Your task to perform on an android device: toggle javascript in the chrome app Image 0: 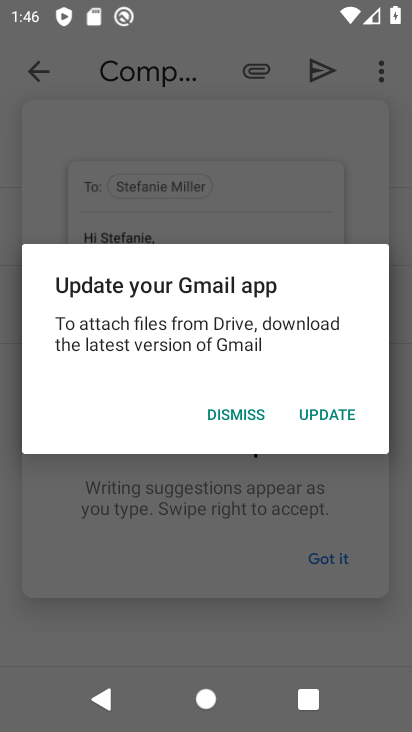
Step 0: click (236, 413)
Your task to perform on an android device: toggle javascript in the chrome app Image 1: 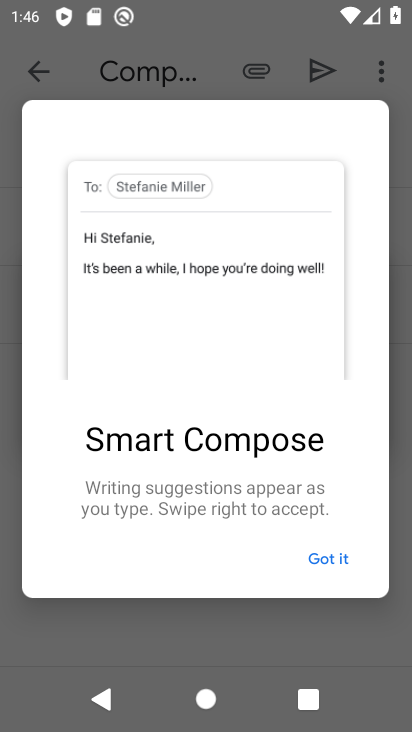
Step 1: click (332, 553)
Your task to perform on an android device: toggle javascript in the chrome app Image 2: 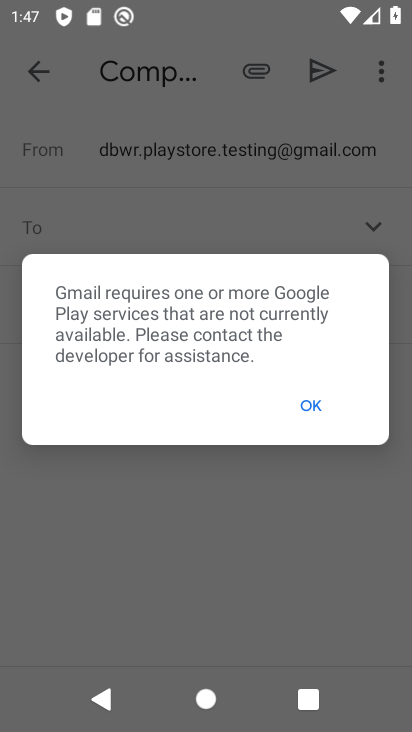
Step 2: click (310, 410)
Your task to perform on an android device: toggle javascript in the chrome app Image 3: 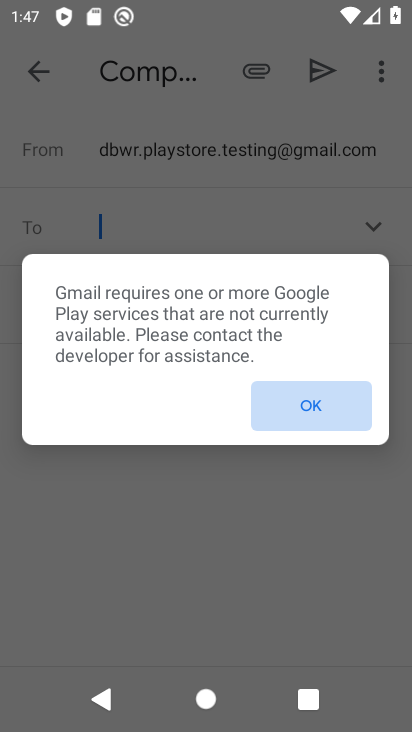
Step 3: click (311, 412)
Your task to perform on an android device: toggle javascript in the chrome app Image 4: 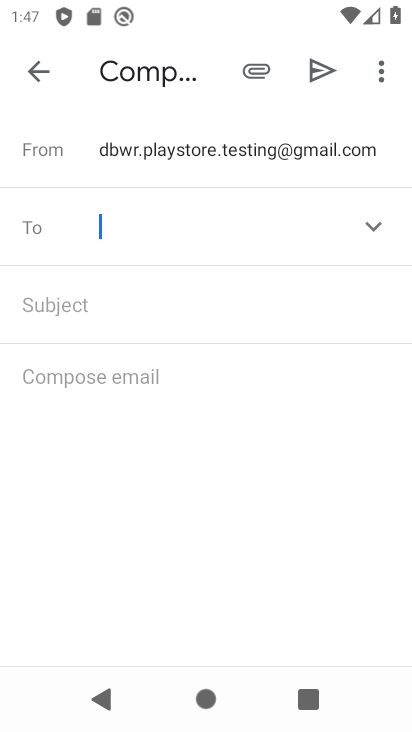
Step 4: click (312, 409)
Your task to perform on an android device: toggle javascript in the chrome app Image 5: 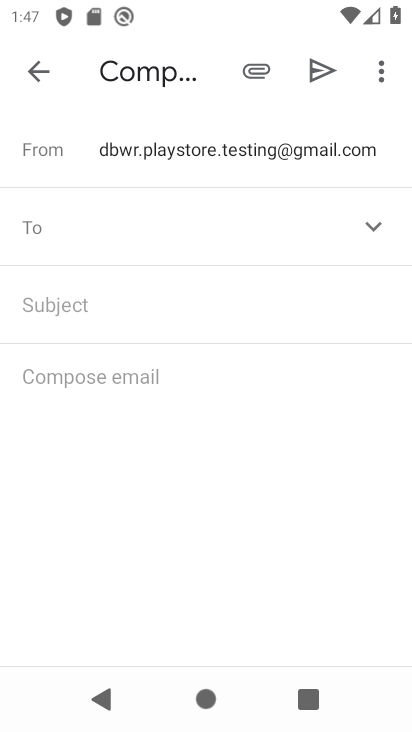
Step 5: click (33, 75)
Your task to perform on an android device: toggle javascript in the chrome app Image 6: 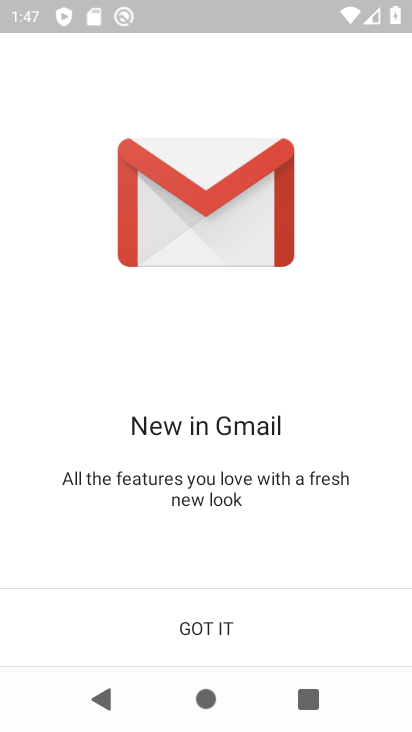
Step 6: click (200, 617)
Your task to perform on an android device: toggle javascript in the chrome app Image 7: 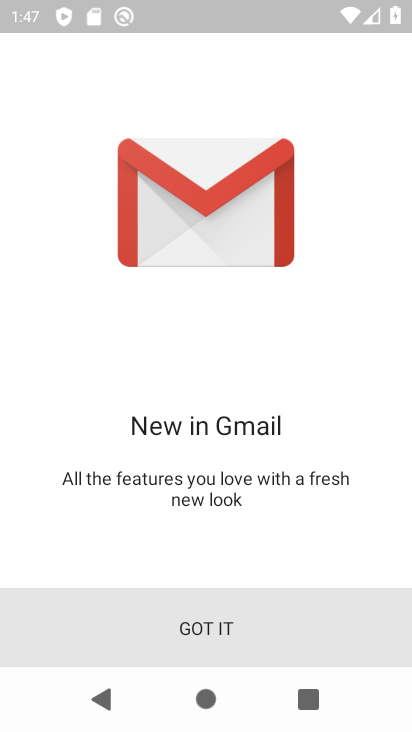
Step 7: click (205, 614)
Your task to perform on an android device: toggle javascript in the chrome app Image 8: 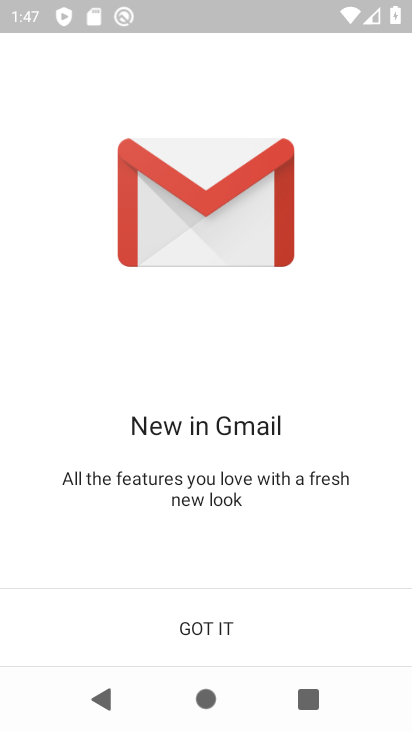
Step 8: click (206, 620)
Your task to perform on an android device: toggle javascript in the chrome app Image 9: 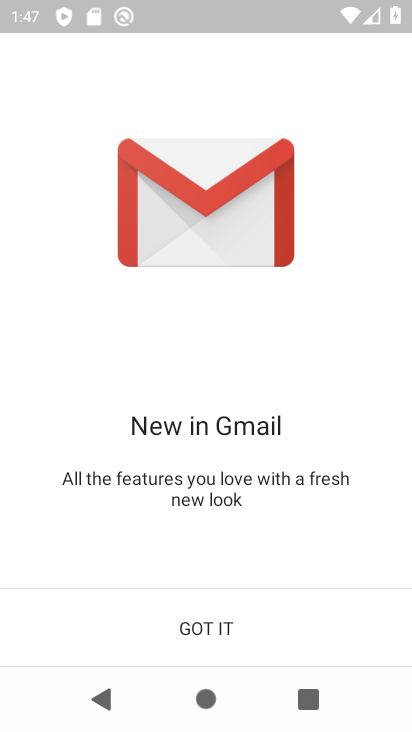
Step 9: click (207, 624)
Your task to perform on an android device: toggle javascript in the chrome app Image 10: 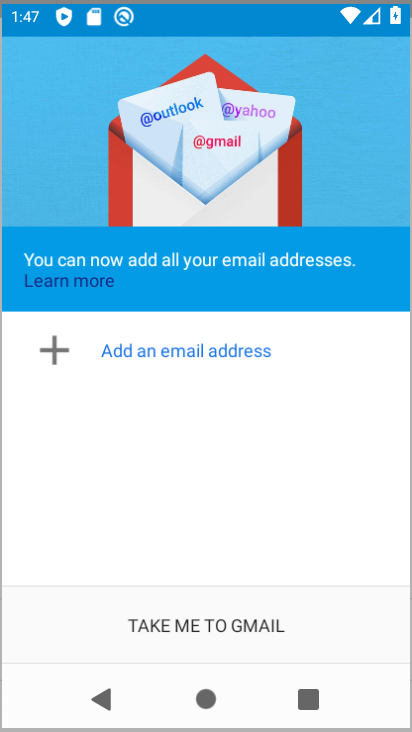
Step 10: click (213, 626)
Your task to perform on an android device: toggle javascript in the chrome app Image 11: 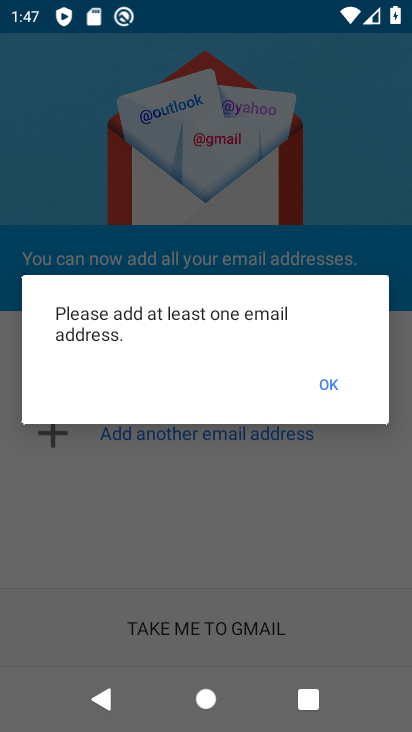
Step 11: click (320, 380)
Your task to perform on an android device: toggle javascript in the chrome app Image 12: 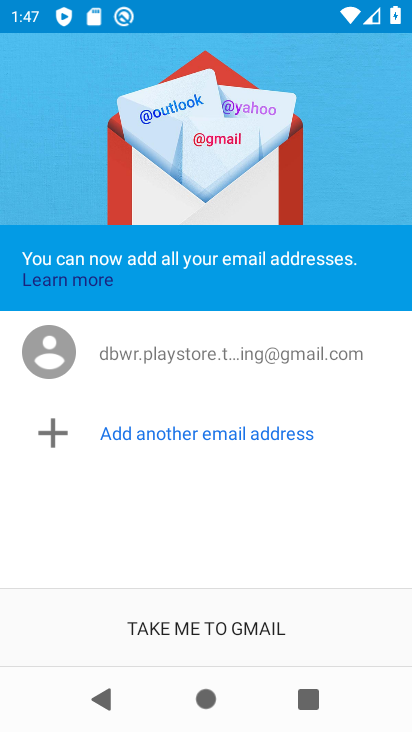
Step 12: click (322, 383)
Your task to perform on an android device: toggle javascript in the chrome app Image 13: 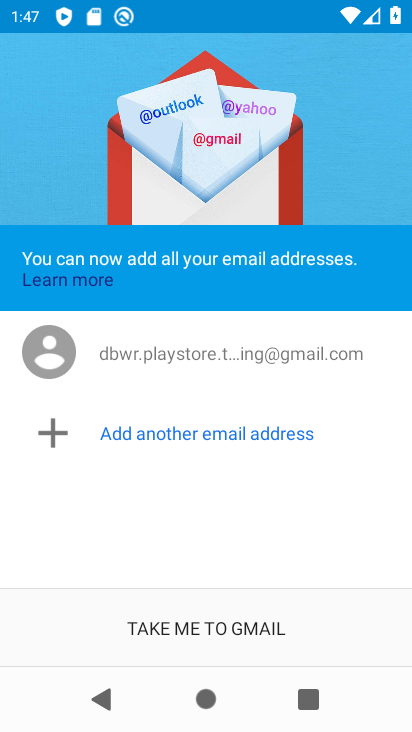
Step 13: press back button
Your task to perform on an android device: toggle javascript in the chrome app Image 14: 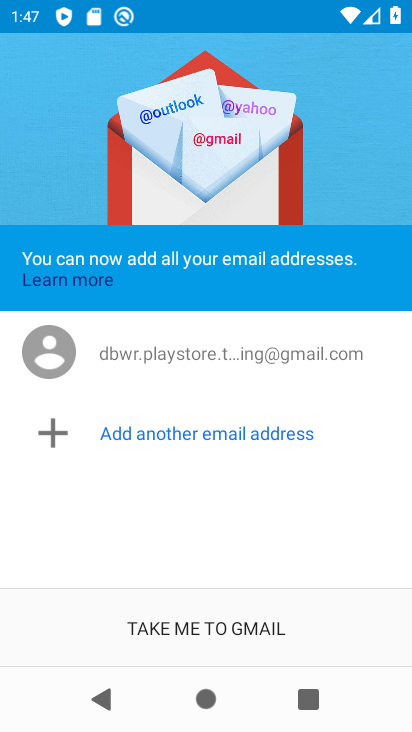
Step 14: press back button
Your task to perform on an android device: toggle javascript in the chrome app Image 15: 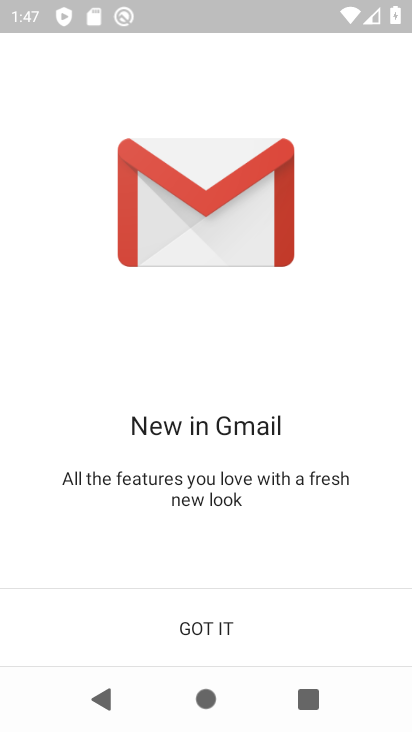
Step 15: press back button
Your task to perform on an android device: toggle javascript in the chrome app Image 16: 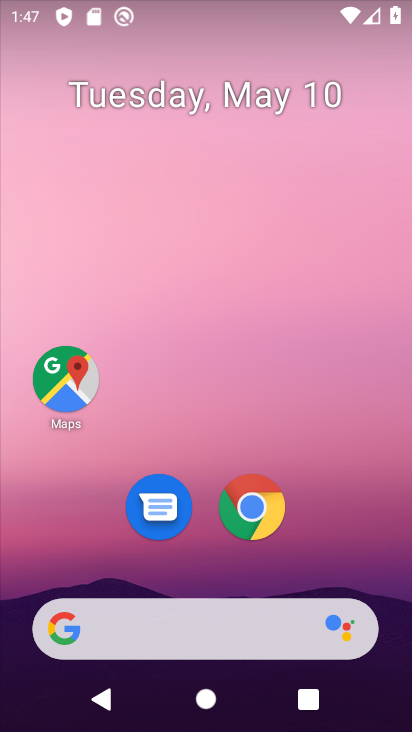
Step 16: drag from (232, 466) to (116, 0)
Your task to perform on an android device: toggle javascript in the chrome app Image 17: 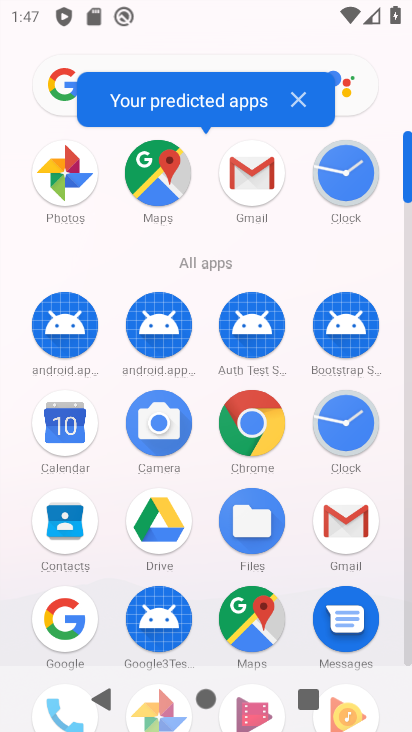
Step 17: click (233, 424)
Your task to perform on an android device: toggle javascript in the chrome app Image 18: 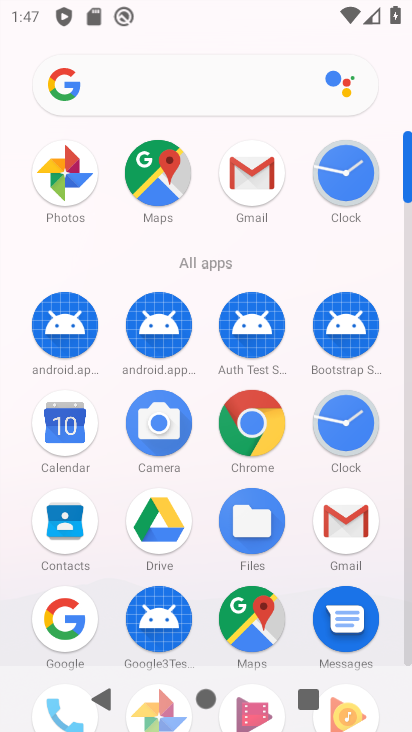
Step 18: click (242, 427)
Your task to perform on an android device: toggle javascript in the chrome app Image 19: 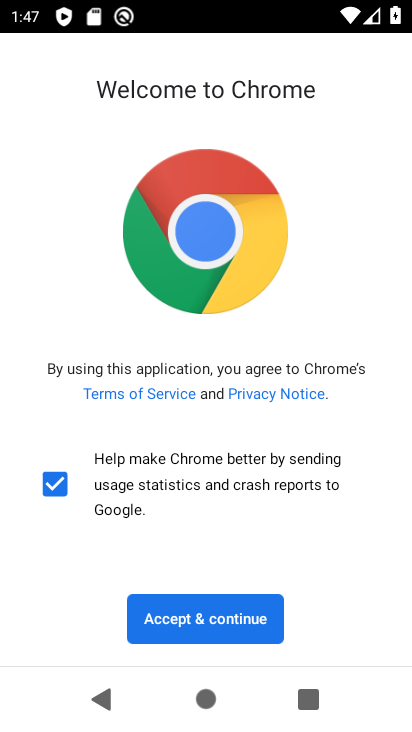
Step 19: click (207, 617)
Your task to perform on an android device: toggle javascript in the chrome app Image 20: 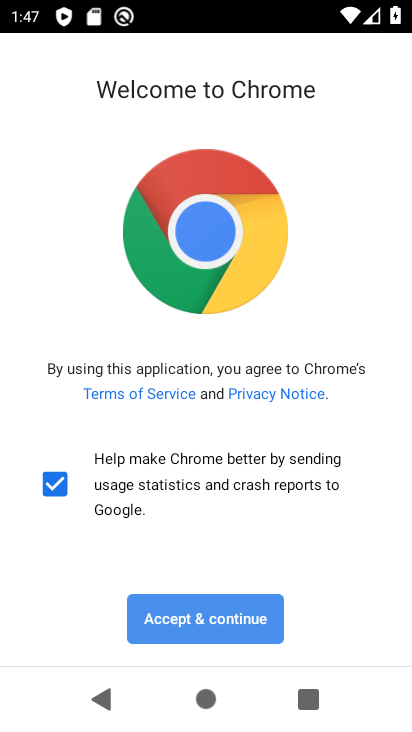
Step 20: click (206, 618)
Your task to perform on an android device: toggle javascript in the chrome app Image 21: 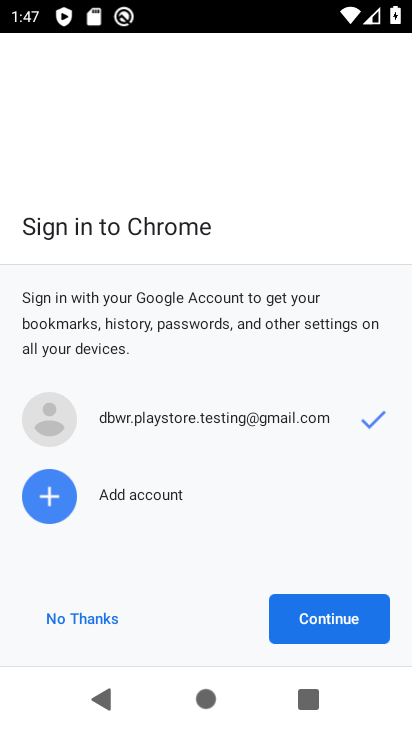
Step 21: click (206, 618)
Your task to perform on an android device: toggle javascript in the chrome app Image 22: 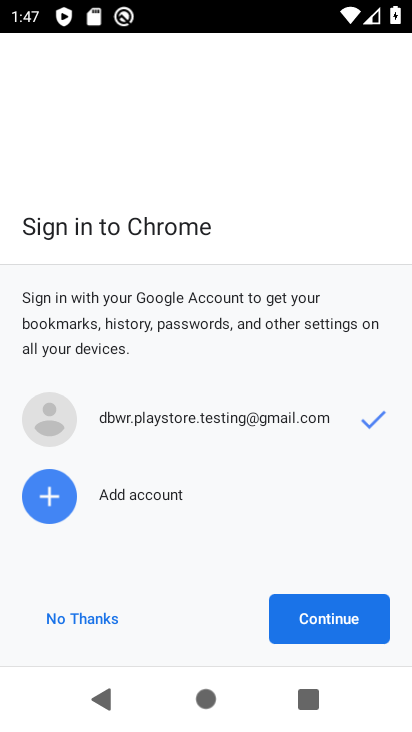
Step 22: click (206, 618)
Your task to perform on an android device: toggle javascript in the chrome app Image 23: 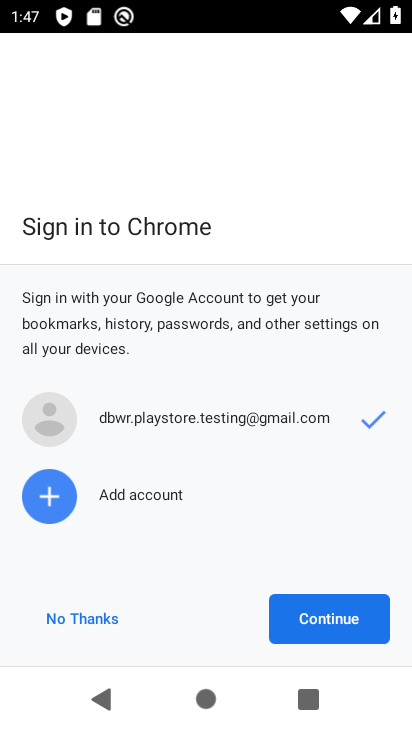
Step 23: click (206, 618)
Your task to perform on an android device: toggle javascript in the chrome app Image 24: 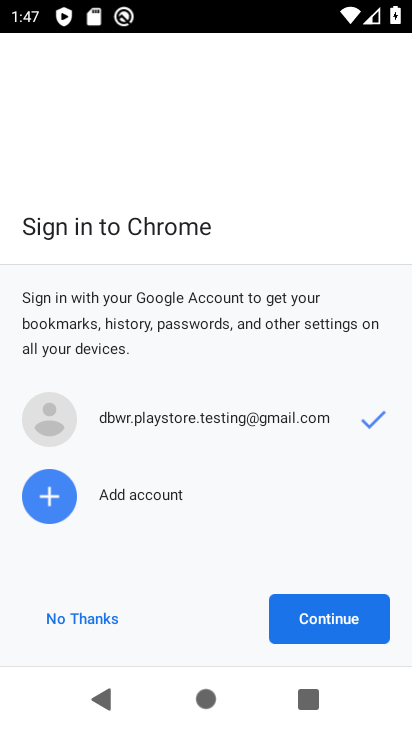
Step 24: click (329, 618)
Your task to perform on an android device: toggle javascript in the chrome app Image 25: 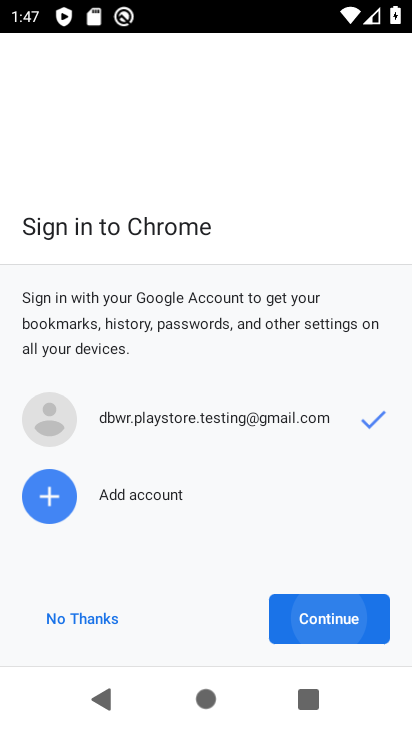
Step 25: click (329, 618)
Your task to perform on an android device: toggle javascript in the chrome app Image 26: 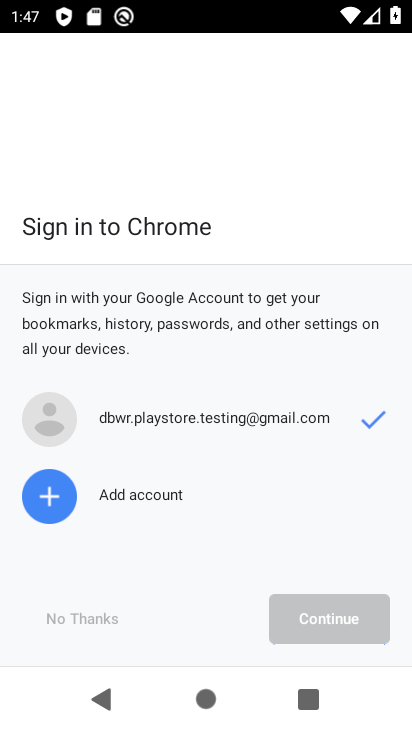
Step 26: click (329, 619)
Your task to perform on an android device: toggle javascript in the chrome app Image 27: 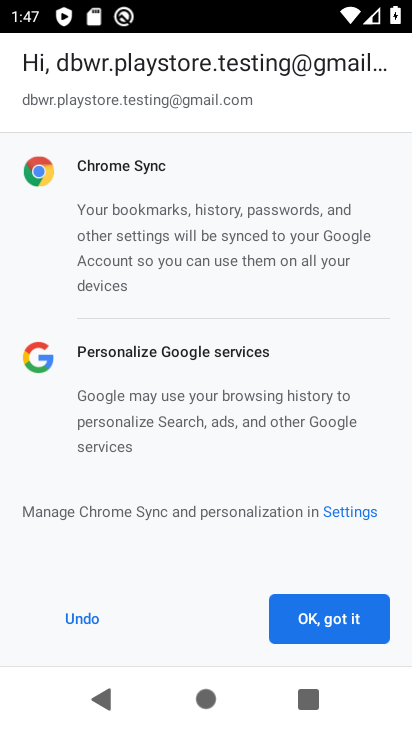
Step 27: click (329, 619)
Your task to perform on an android device: toggle javascript in the chrome app Image 28: 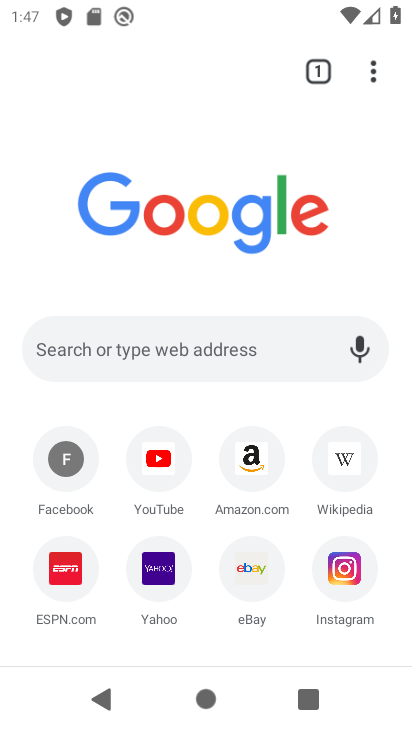
Step 28: drag from (370, 83) to (107, 495)
Your task to perform on an android device: toggle javascript in the chrome app Image 29: 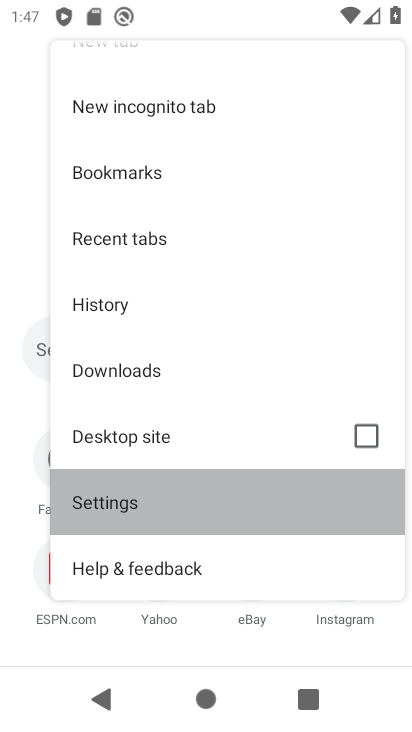
Step 29: click (106, 494)
Your task to perform on an android device: toggle javascript in the chrome app Image 30: 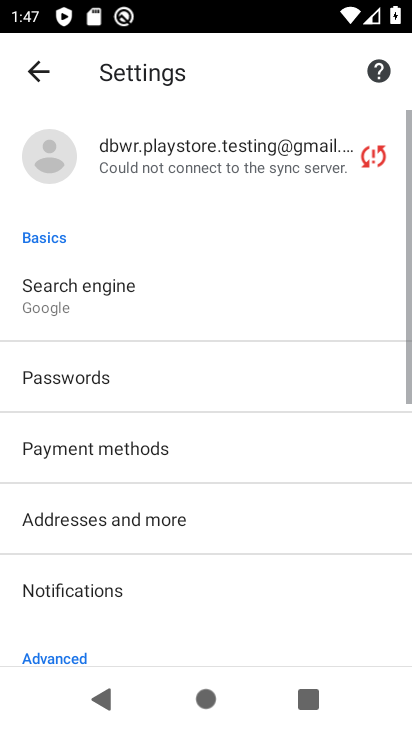
Step 30: drag from (222, 523) to (144, 113)
Your task to perform on an android device: toggle javascript in the chrome app Image 31: 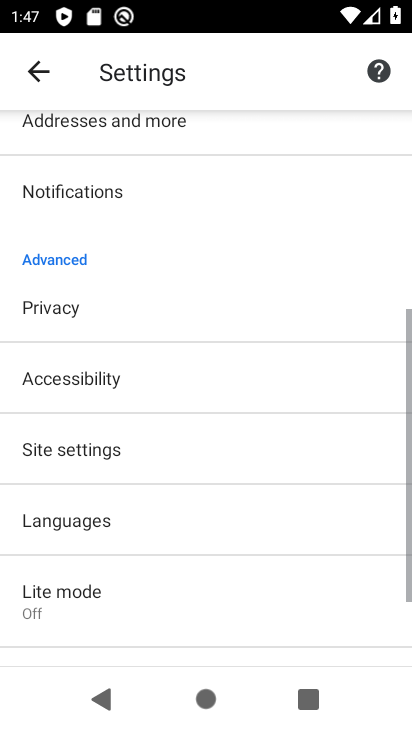
Step 31: drag from (204, 416) to (150, 82)
Your task to perform on an android device: toggle javascript in the chrome app Image 32: 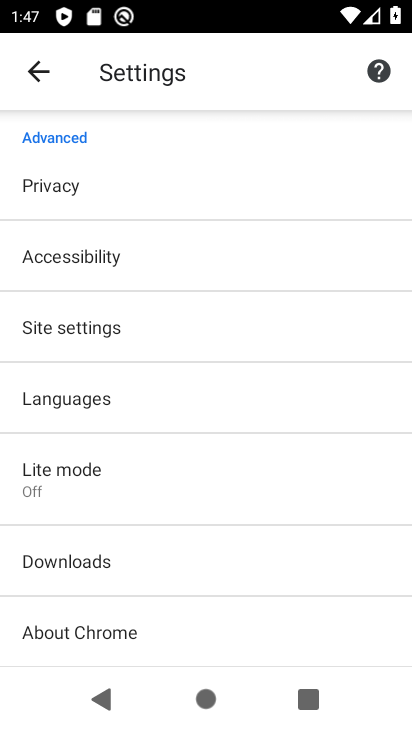
Step 32: click (62, 331)
Your task to perform on an android device: toggle javascript in the chrome app Image 33: 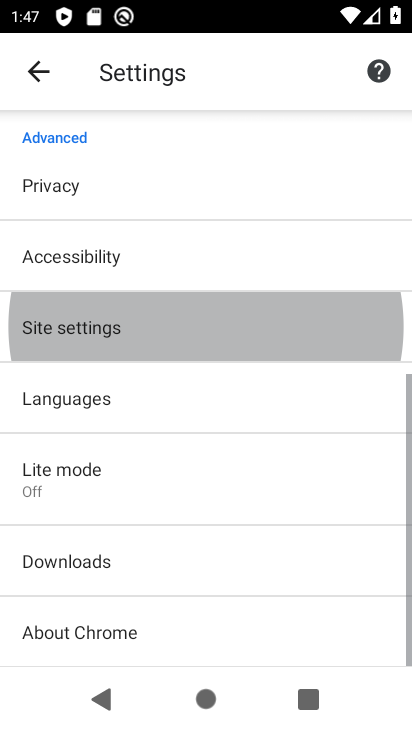
Step 33: click (63, 328)
Your task to perform on an android device: toggle javascript in the chrome app Image 34: 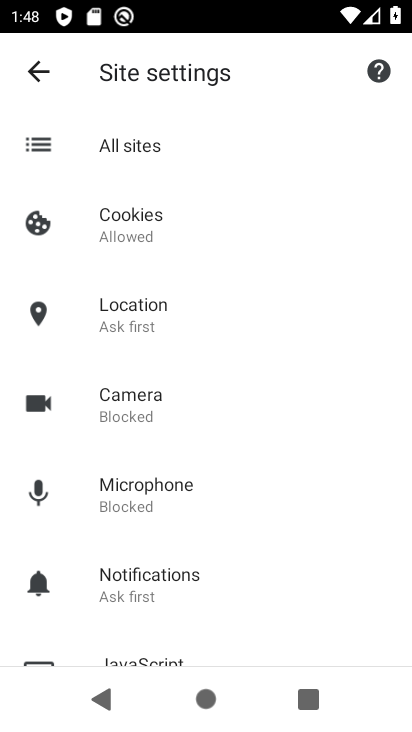
Step 34: drag from (179, 506) to (99, 91)
Your task to perform on an android device: toggle javascript in the chrome app Image 35: 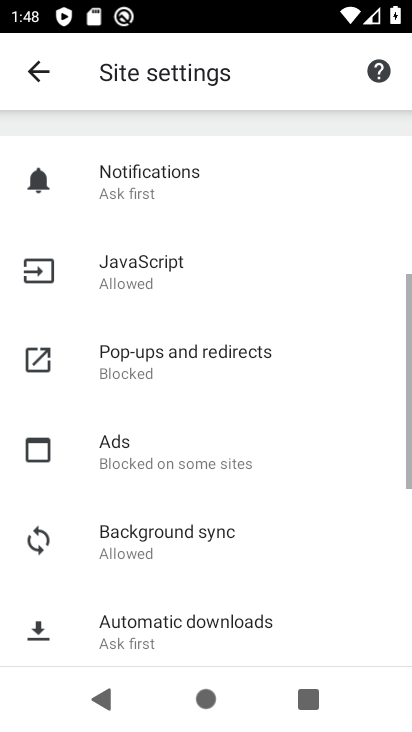
Step 35: drag from (210, 539) to (192, 177)
Your task to perform on an android device: toggle javascript in the chrome app Image 36: 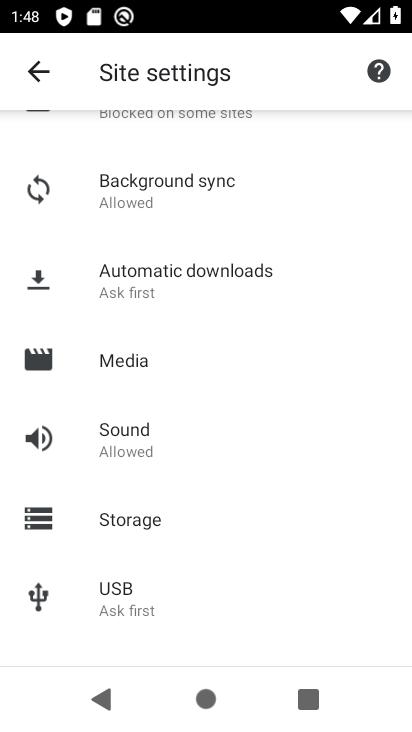
Step 36: click (119, 185)
Your task to perform on an android device: toggle javascript in the chrome app Image 37: 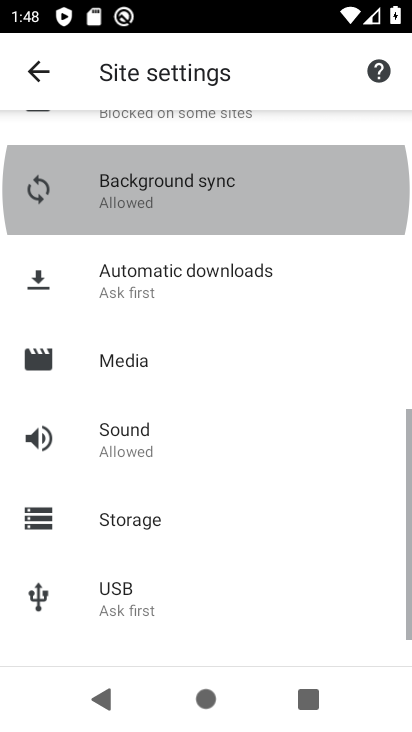
Step 37: click (120, 185)
Your task to perform on an android device: toggle javascript in the chrome app Image 38: 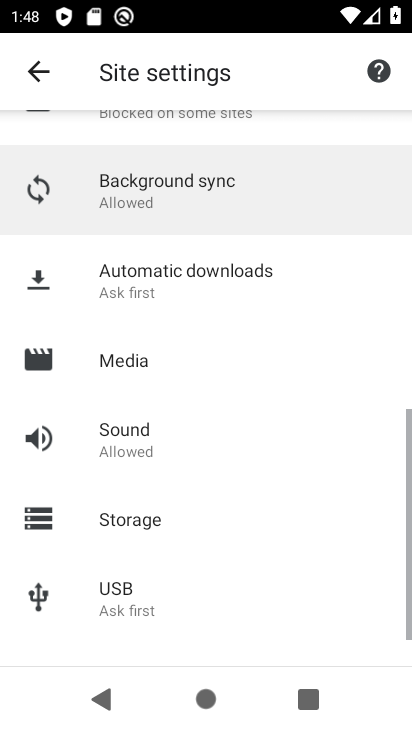
Step 38: click (124, 189)
Your task to perform on an android device: toggle javascript in the chrome app Image 39: 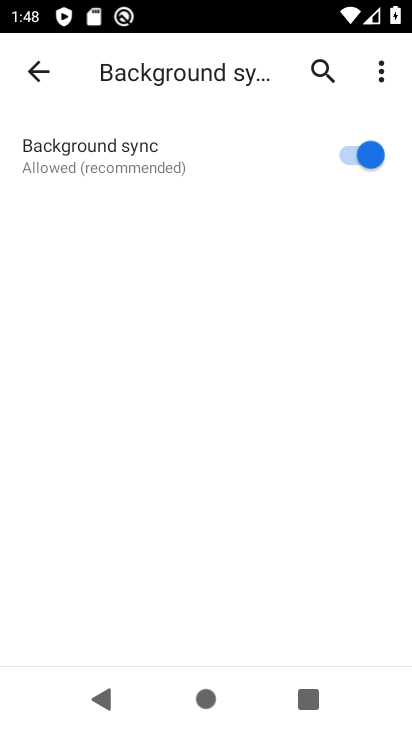
Step 39: click (35, 72)
Your task to perform on an android device: toggle javascript in the chrome app Image 40: 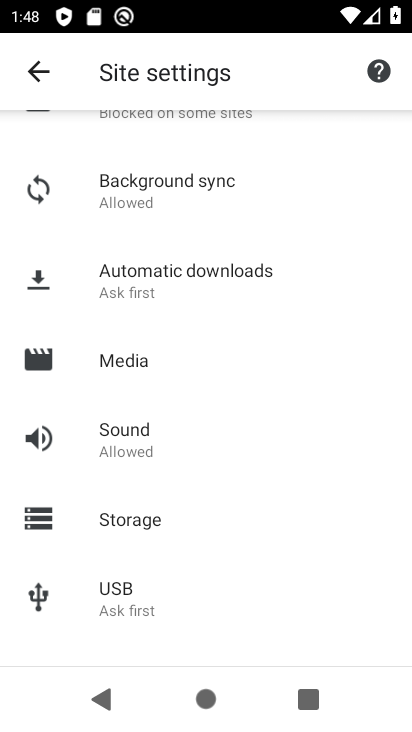
Step 40: drag from (132, 287) to (146, 510)
Your task to perform on an android device: toggle javascript in the chrome app Image 41: 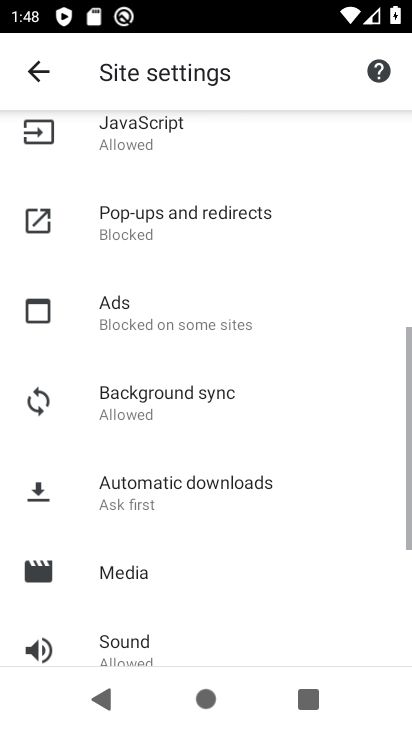
Step 41: drag from (142, 259) to (161, 454)
Your task to perform on an android device: toggle javascript in the chrome app Image 42: 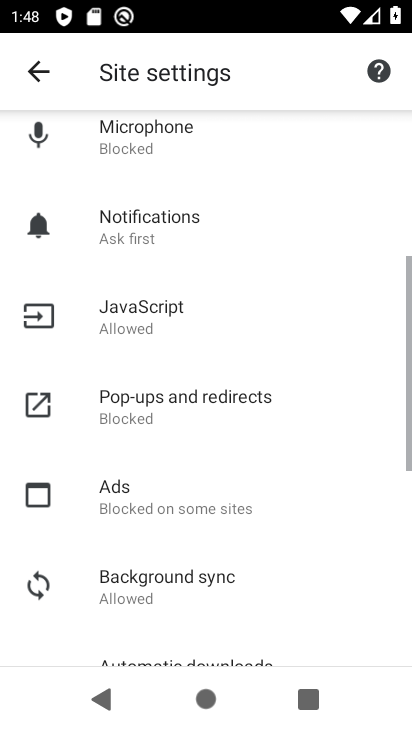
Step 42: drag from (164, 291) to (163, 548)
Your task to perform on an android device: toggle javascript in the chrome app Image 43: 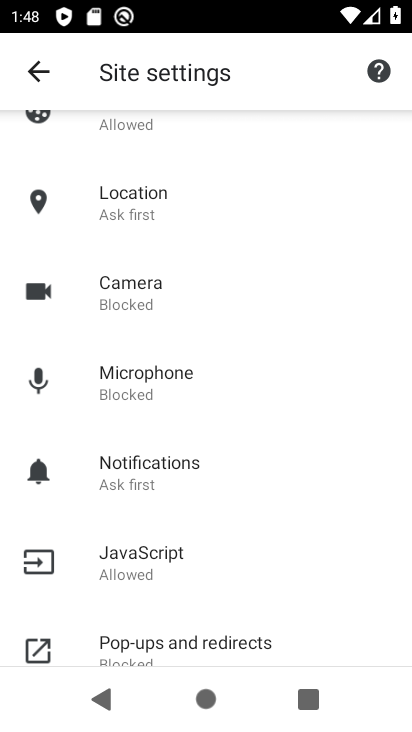
Step 43: click (152, 550)
Your task to perform on an android device: toggle javascript in the chrome app Image 44: 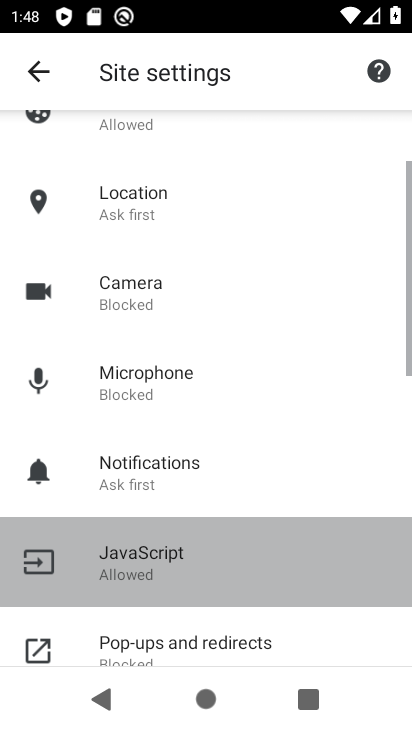
Step 44: click (152, 550)
Your task to perform on an android device: toggle javascript in the chrome app Image 45: 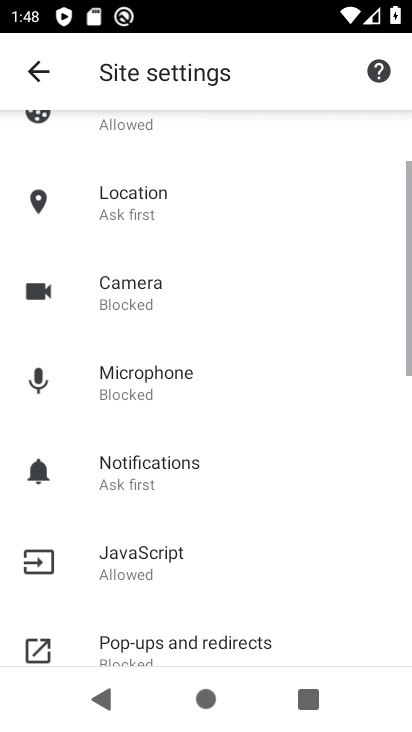
Step 45: click (152, 550)
Your task to perform on an android device: toggle javascript in the chrome app Image 46: 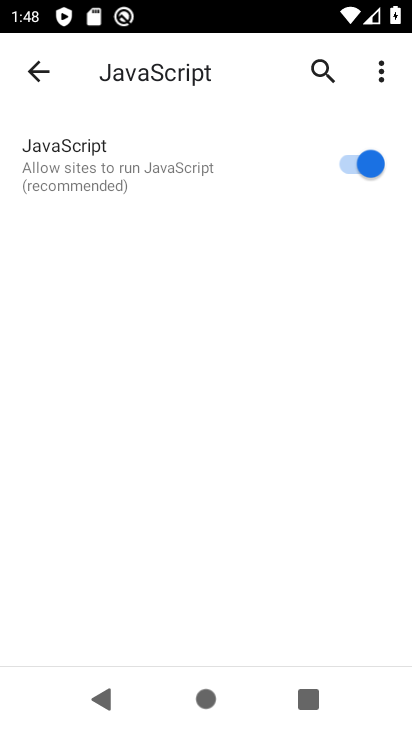
Step 46: click (369, 160)
Your task to perform on an android device: toggle javascript in the chrome app Image 47: 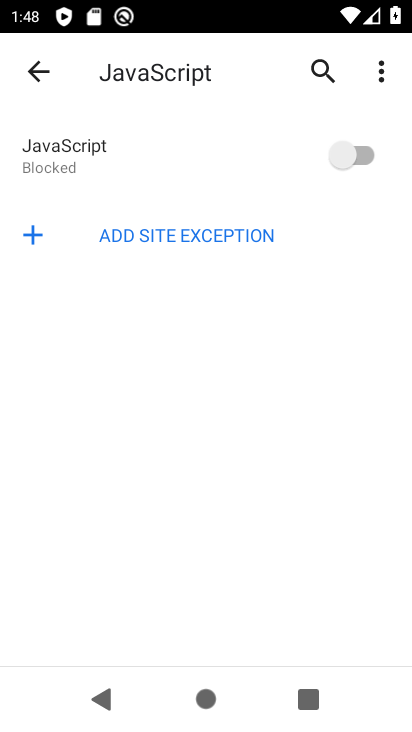
Step 47: task complete